Your task to perform on an android device: change keyboard looks Image 0: 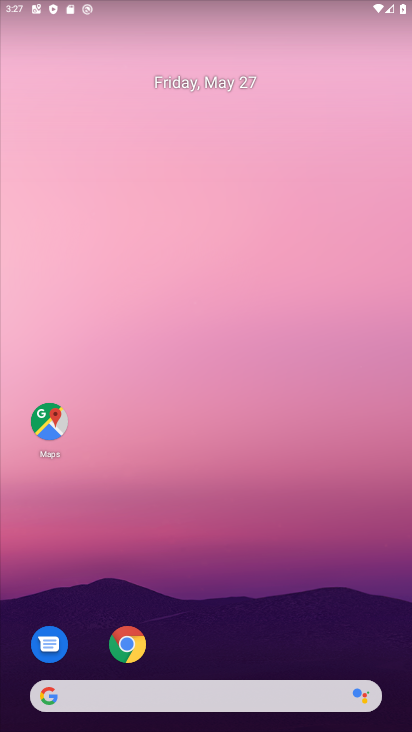
Step 0: drag from (238, 290) to (191, 12)
Your task to perform on an android device: change keyboard looks Image 1: 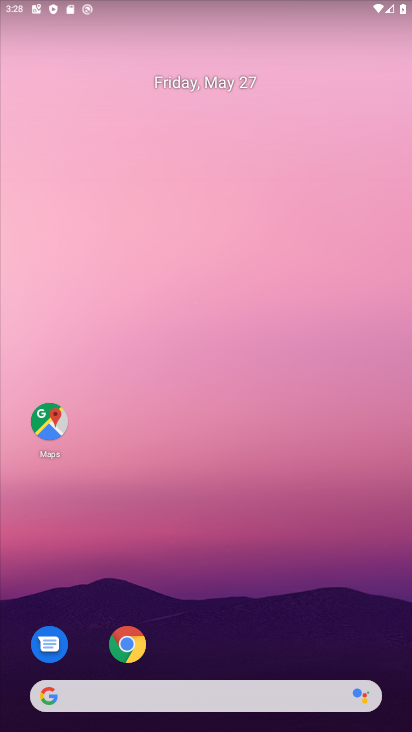
Step 1: drag from (235, 597) to (152, 6)
Your task to perform on an android device: change keyboard looks Image 2: 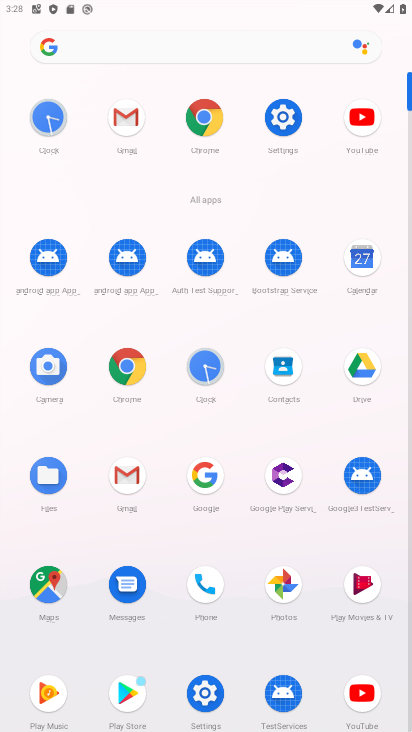
Step 2: click (281, 143)
Your task to perform on an android device: change keyboard looks Image 3: 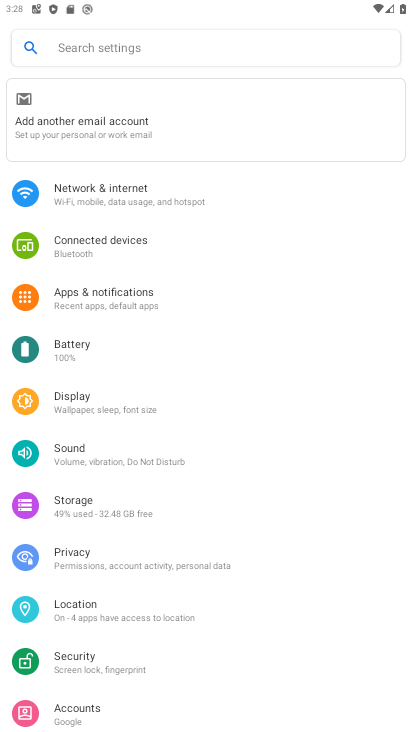
Step 3: drag from (256, 620) to (145, 29)
Your task to perform on an android device: change keyboard looks Image 4: 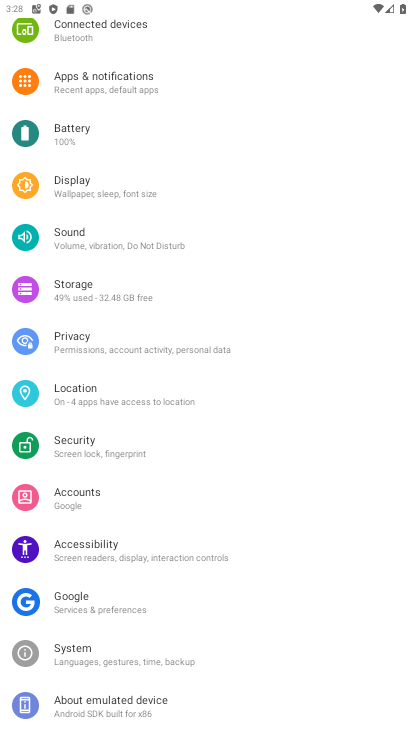
Step 4: click (137, 651)
Your task to perform on an android device: change keyboard looks Image 5: 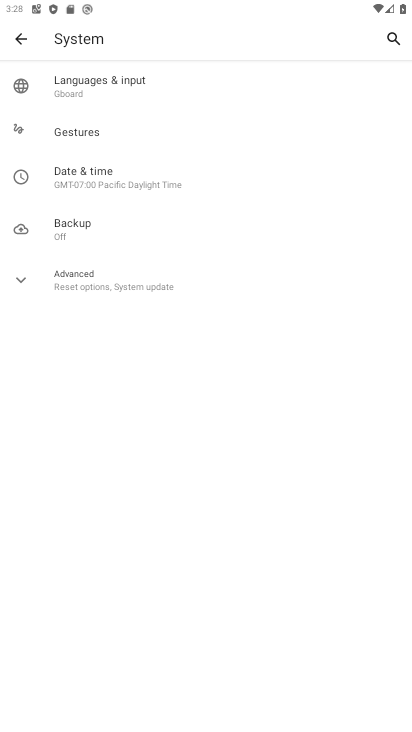
Step 5: click (135, 81)
Your task to perform on an android device: change keyboard looks Image 6: 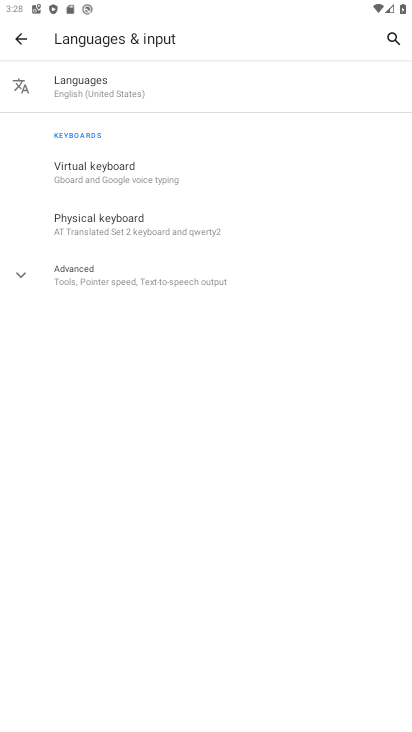
Step 6: click (125, 169)
Your task to perform on an android device: change keyboard looks Image 7: 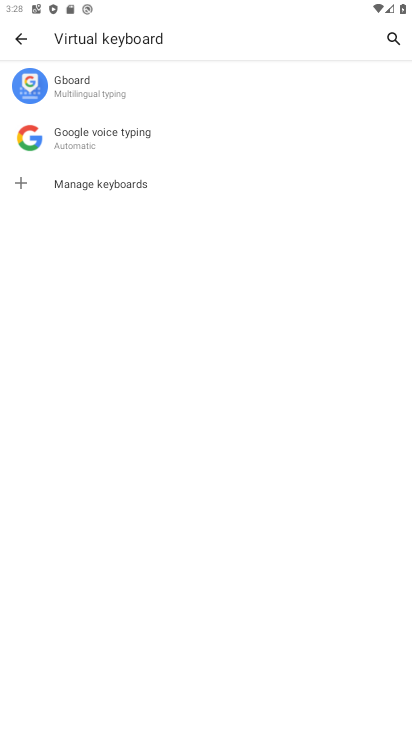
Step 7: click (148, 89)
Your task to perform on an android device: change keyboard looks Image 8: 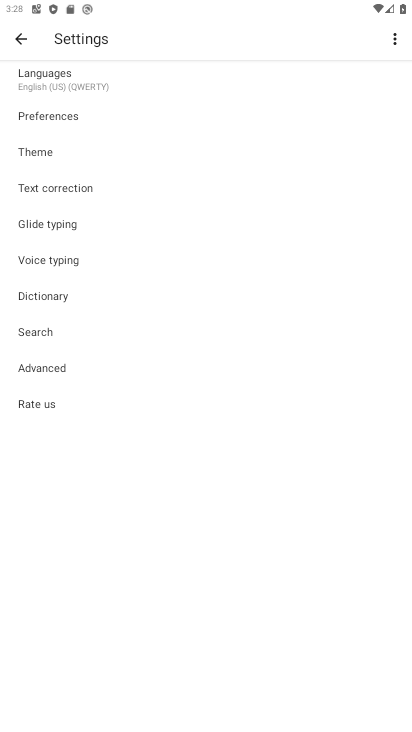
Step 8: click (118, 151)
Your task to perform on an android device: change keyboard looks Image 9: 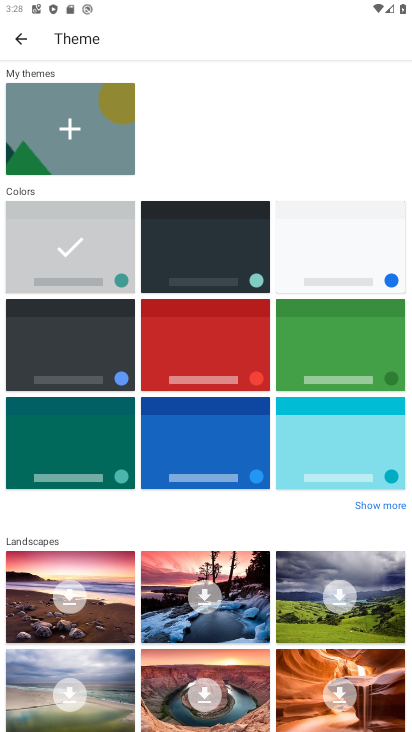
Step 9: click (205, 366)
Your task to perform on an android device: change keyboard looks Image 10: 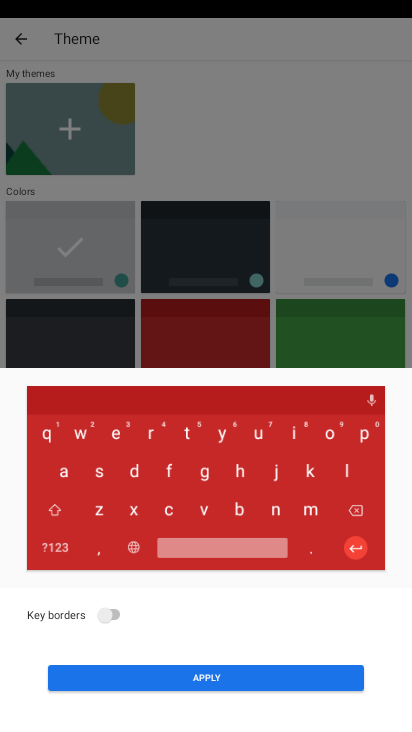
Step 10: click (220, 679)
Your task to perform on an android device: change keyboard looks Image 11: 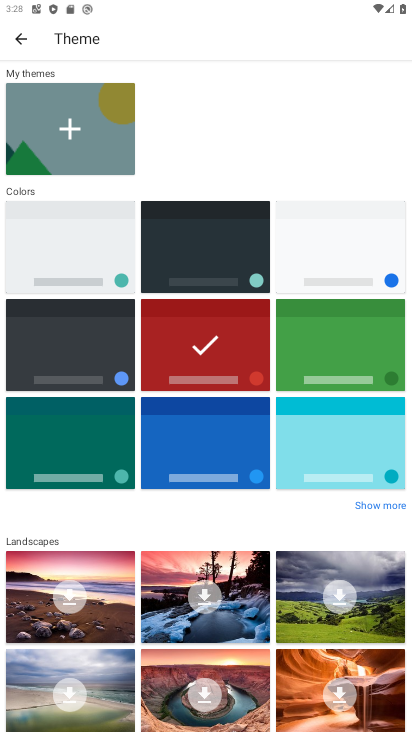
Step 11: task complete